Your task to perform on an android device: change alarm snooze length Image 0: 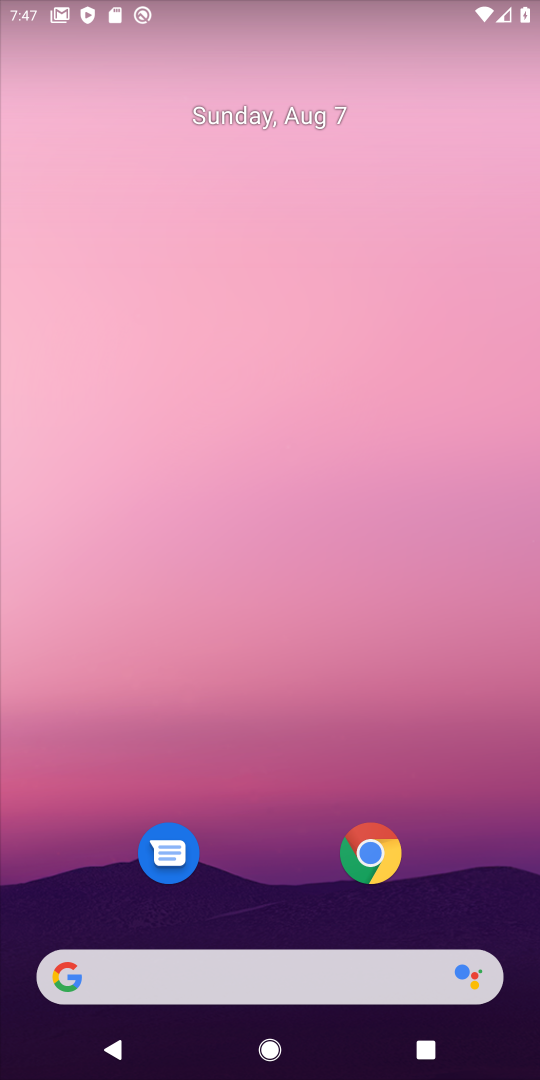
Step 0: drag from (244, 797) to (304, 282)
Your task to perform on an android device: change alarm snooze length Image 1: 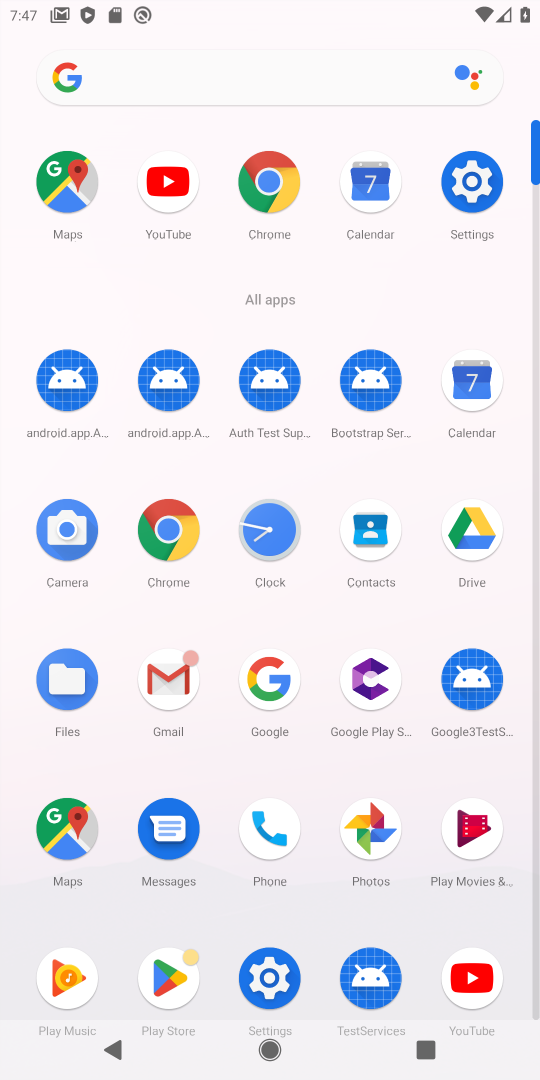
Step 1: click (248, 539)
Your task to perform on an android device: change alarm snooze length Image 2: 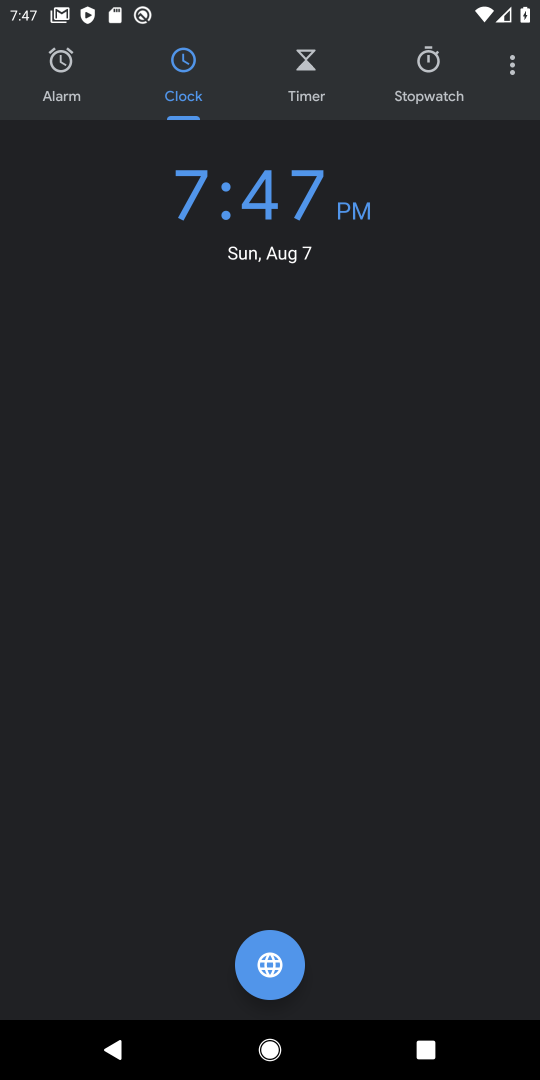
Step 2: click (511, 65)
Your task to perform on an android device: change alarm snooze length Image 3: 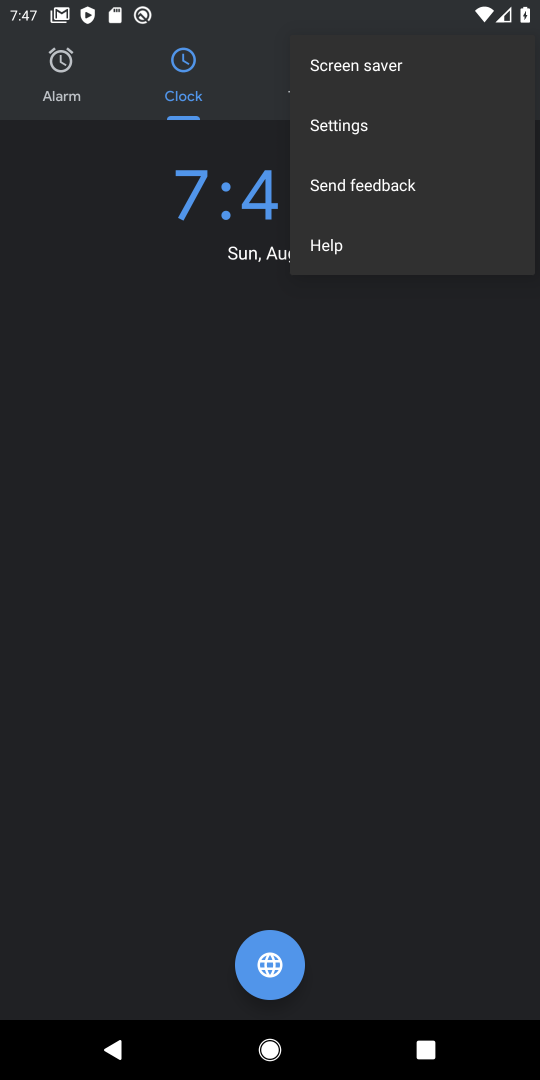
Step 3: click (355, 141)
Your task to perform on an android device: change alarm snooze length Image 4: 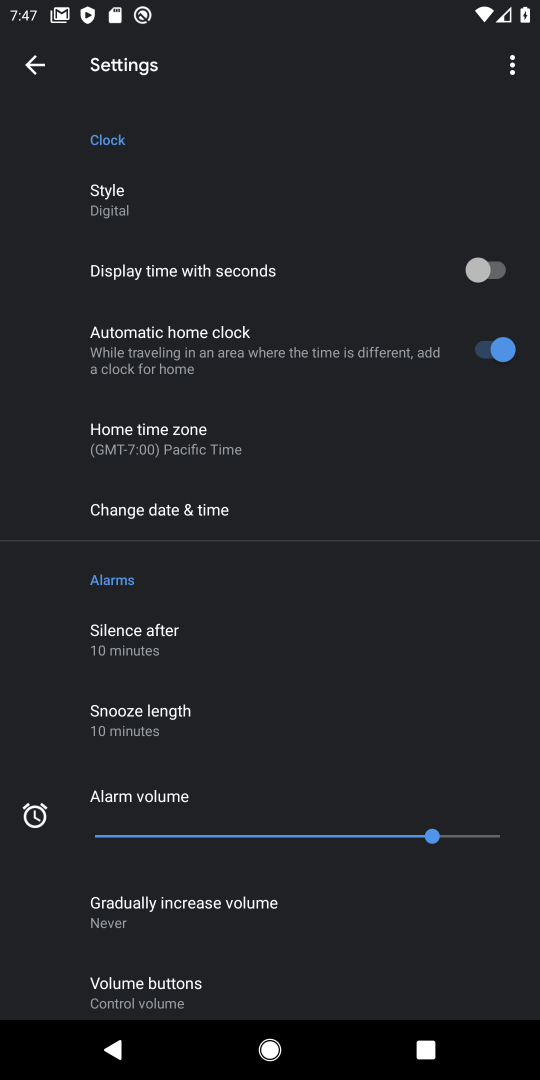
Step 4: click (158, 734)
Your task to perform on an android device: change alarm snooze length Image 5: 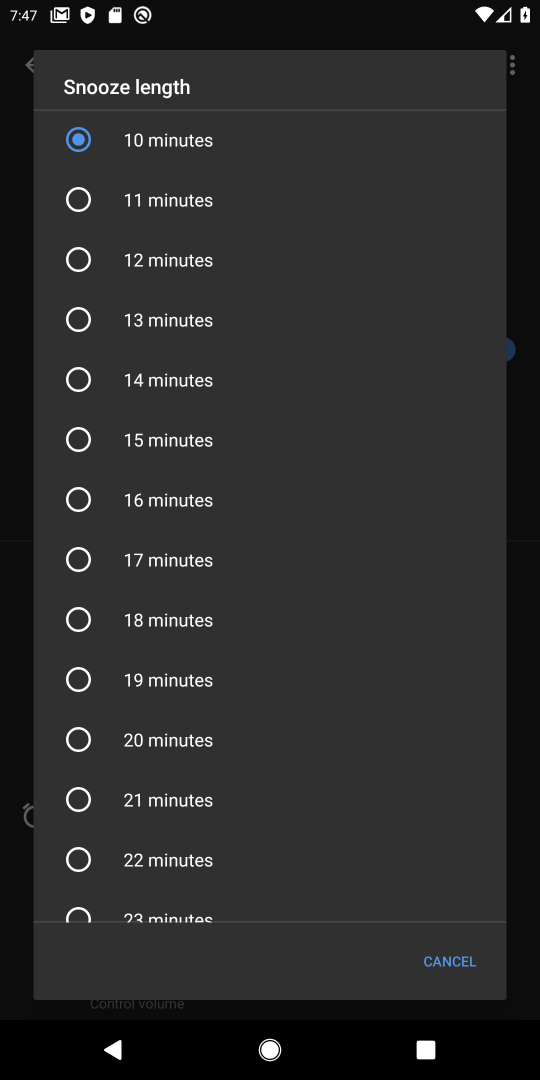
Step 5: click (110, 426)
Your task to perform on an android device: change alarm snooze length Image 6: 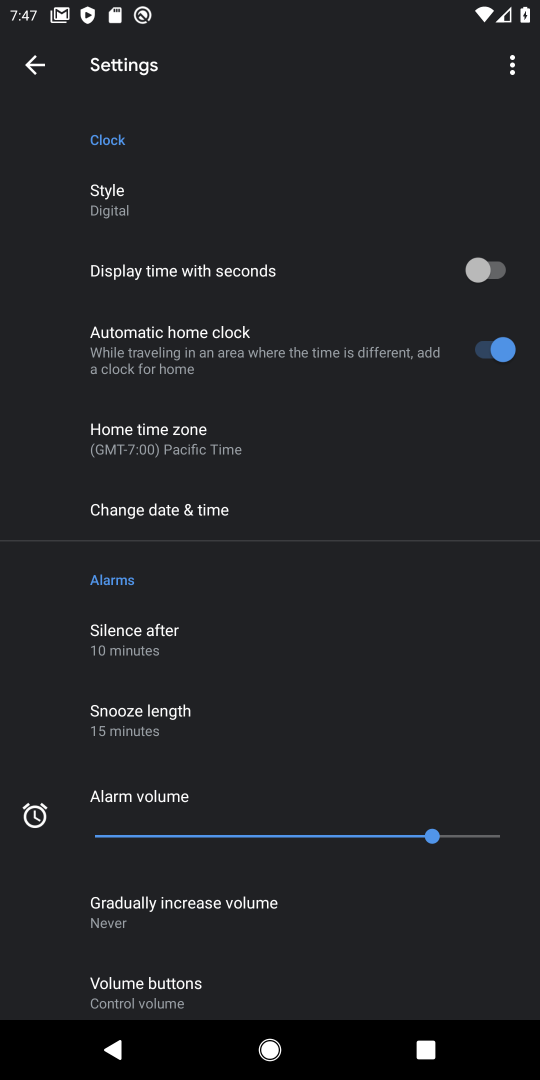
Step 6: task complete